Your task to perform on an android device: add a contact Image 0: 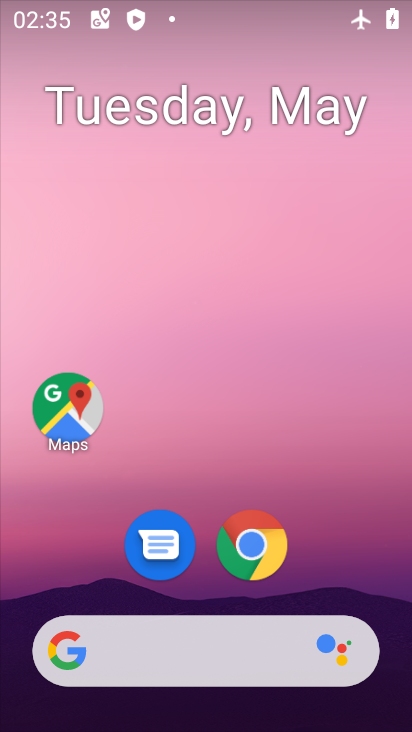
Step 0: drag from (390, 617) to (328, 34)
Your task to perform on an android device: add a contact Image 1: 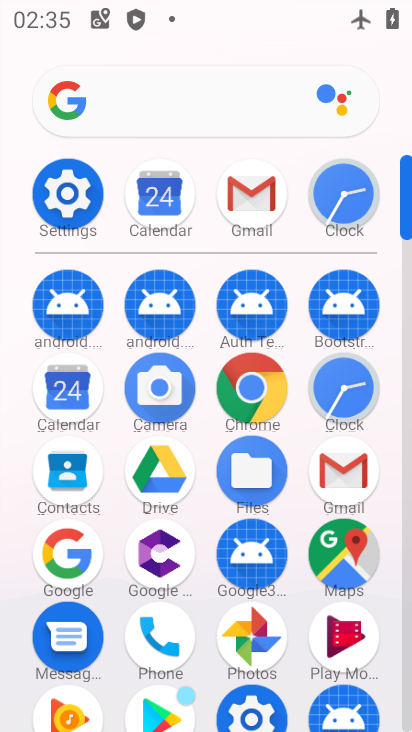
Step 1: click (406, 694)
Your task to perform on an android device: add a contact Image 2: 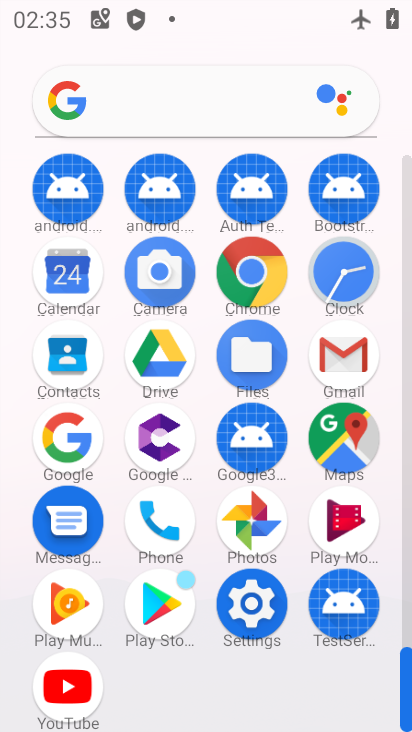
Step 2: click (67, 357)
Your task to perform on an android device: add a contact Image 3: 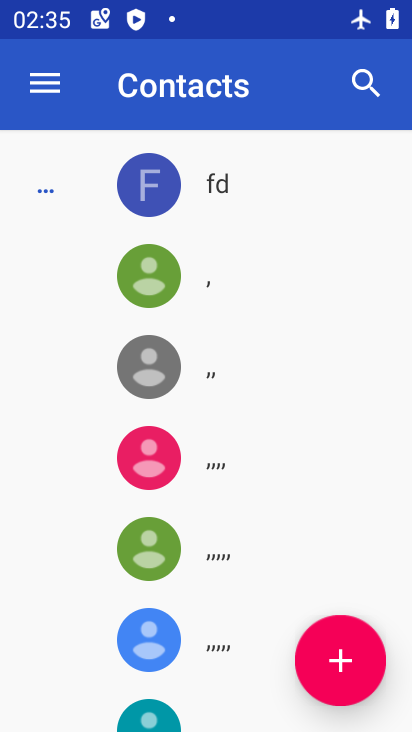
Step 3: click (339, 663)
Your task to perform on an android device: add a contact Image 4: 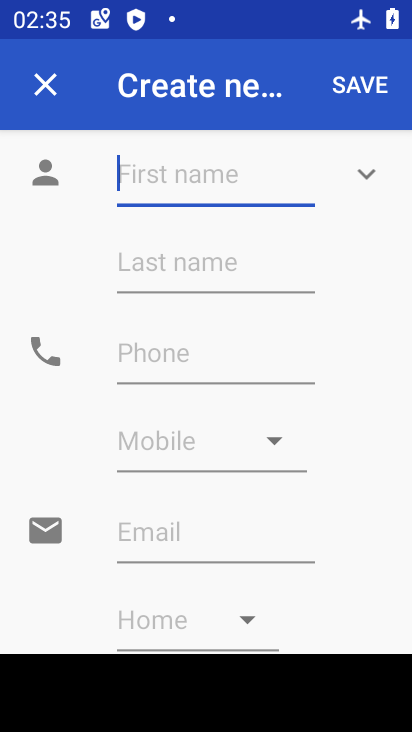
Step 4: type ""
Your task to perform on an android device: add a contact Image 5: 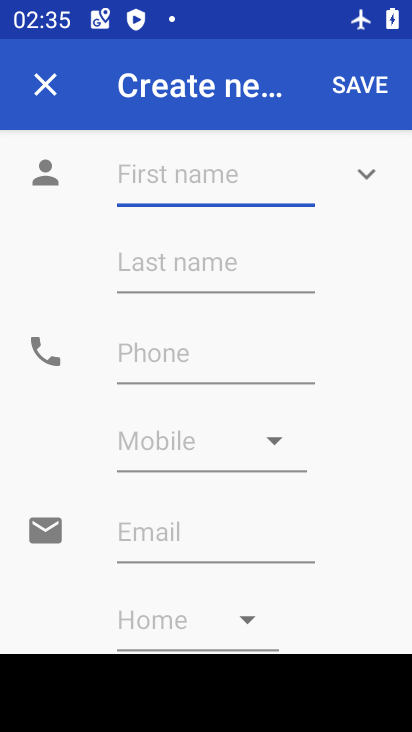
Step 5: type "oylukfdfhgjhnvm"
Your task to perform on an android device: add a contact Image 6: 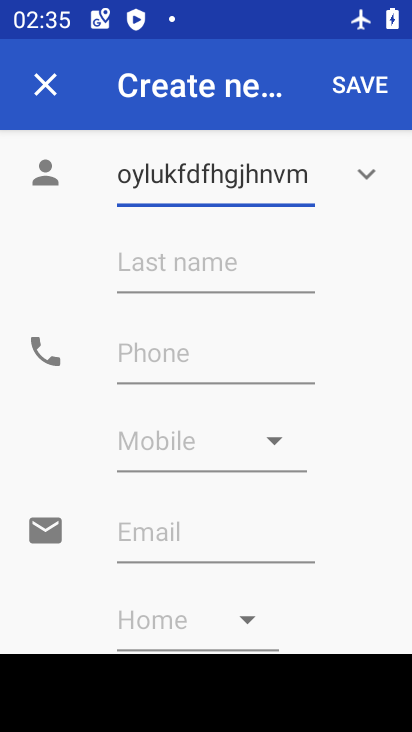
Step 6: click (232, 364)
Your task to perform on an android device: add a contact Image 7: 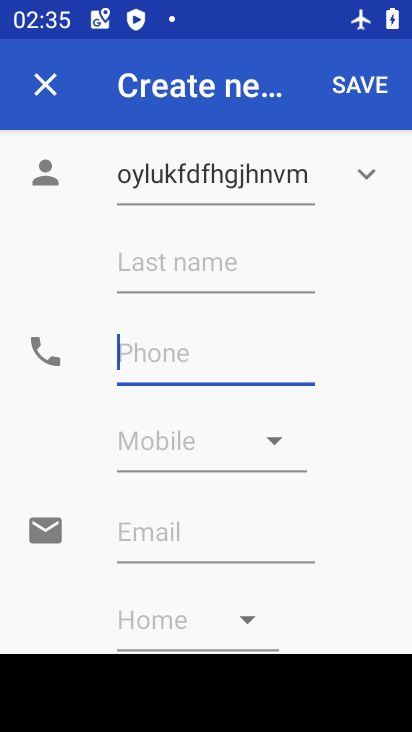
Step 7: type "098746323457"
Your task to perform on an android device: add a contact Image 8: 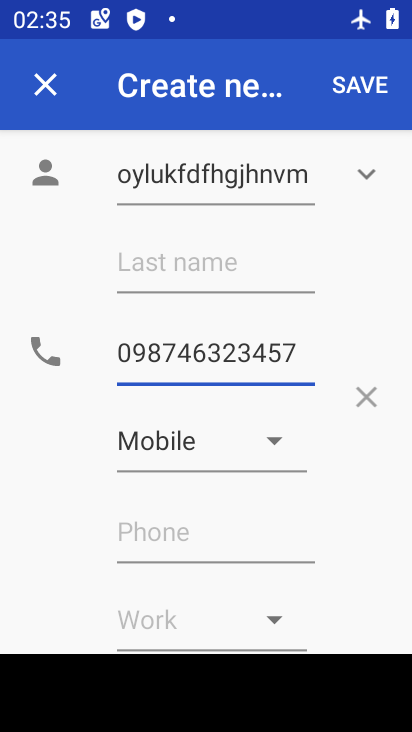
Step 8: click (273, 445)
Your task to perform on an android device: add a contact Image 9: 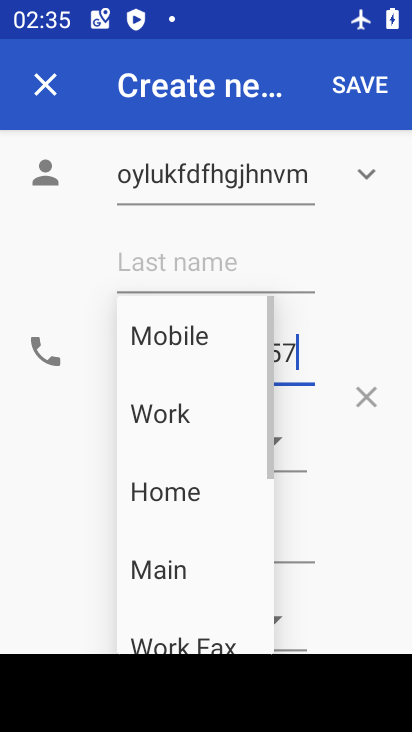
Step 9: click (147, 411)
Your task to perform on an android device: add a contact Image 10: 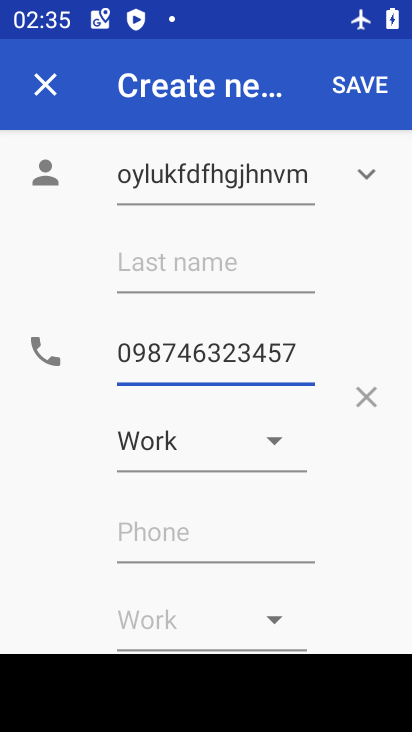
Step 10: click (356, 79)
Your task to perform on an android device: add a contact Image 11: 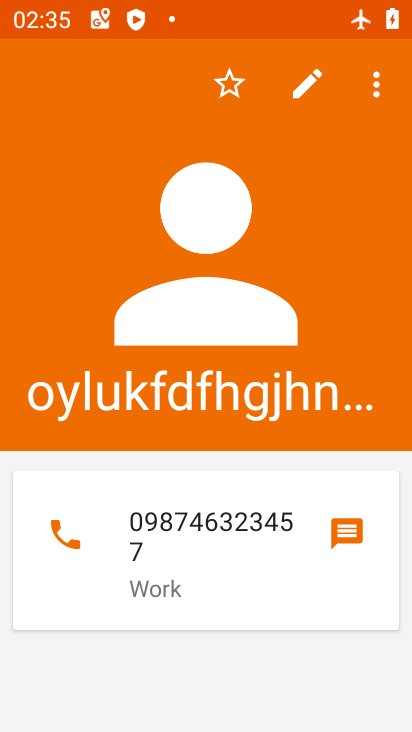
Step 11: task complete